Your task to perform on an android device: toggle notification dots Image 0: 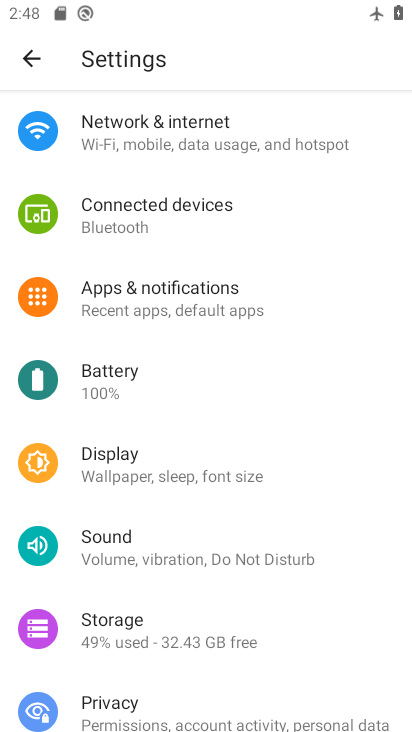
Step 0: press home button
Your task to perform on an android device: toggle notification dots Image 1: 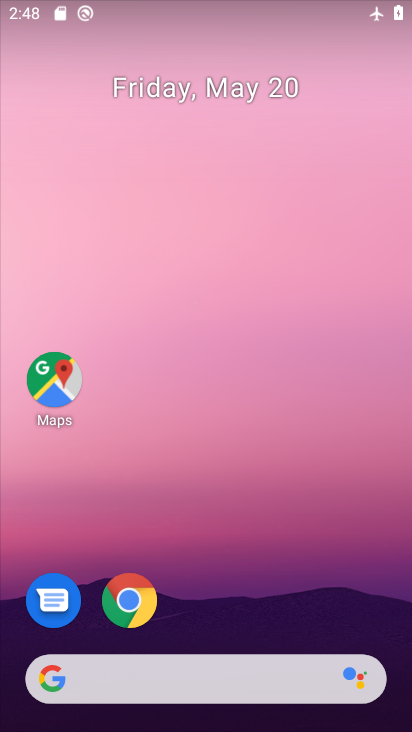
Step 1: drag from (285, 482) to (213, 106)
Your task to perform on an android device: toggle notification dots Image 2: 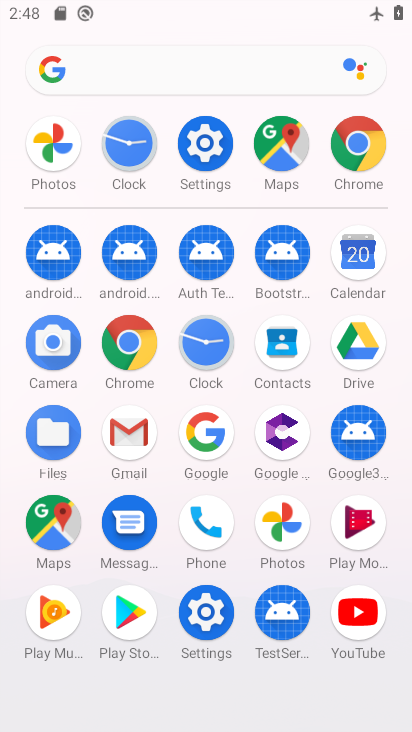
Step 2: click (210, 143)
Your task to perform on an android device: toggle notification dots Image 3: 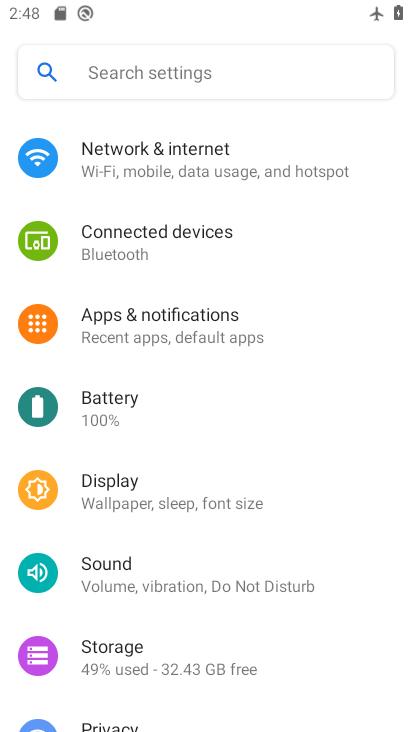
Step 3: click (204, 328)
Your task to perform on an android device: toggle notification dots Image 4: 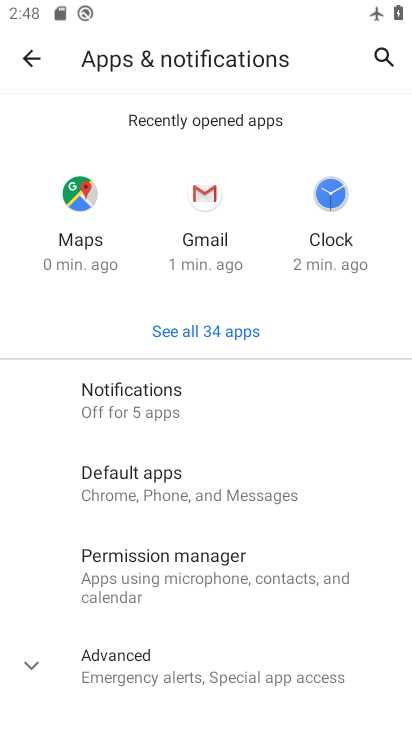
Step 4: drag from (311, 526) to (245, 151)
Your task to perform on an android device: toggle notification dots Image 5: 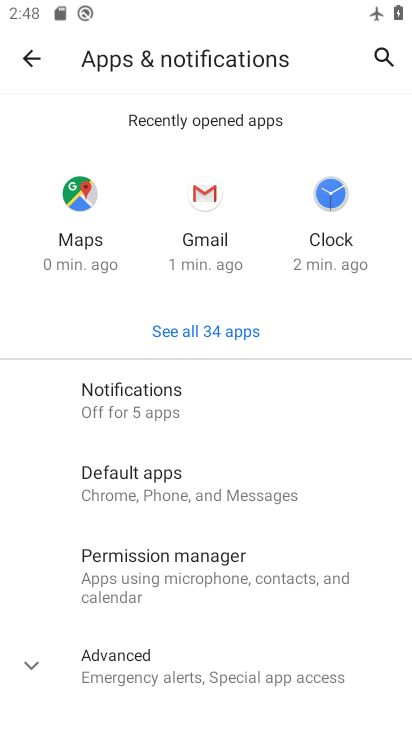
Step 5: click (202, 408)
Your task to perform on an android device: toggle notification dots Image 6: 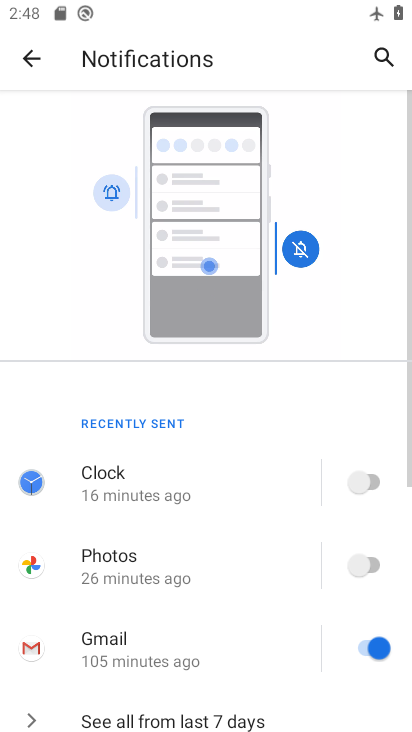
Step 6: drag from (280, 585) to (277, 160)
Your task to perform on an android device: toggle notification dots Image 7: 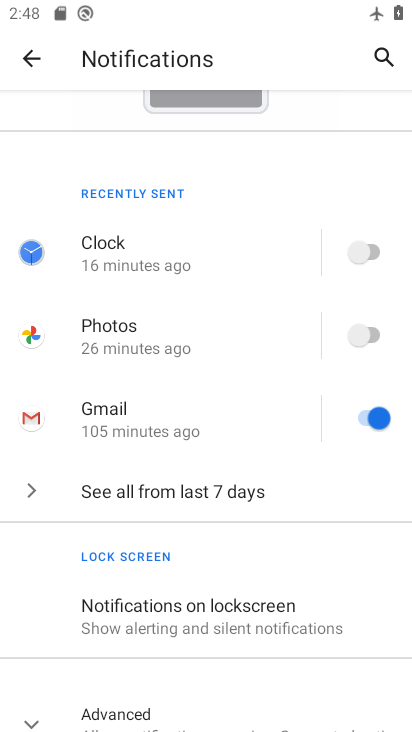
Step 7: click (206, 692)
Your task to perform on an android device: toggle notification dots Image 8: 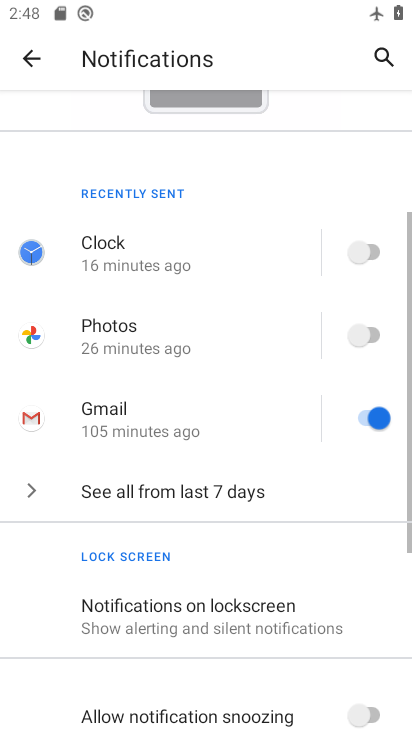
Step 8: drag from (231, 659) to (267, 216)
Your task to perform on an android device: toggle notification dots Image 9: 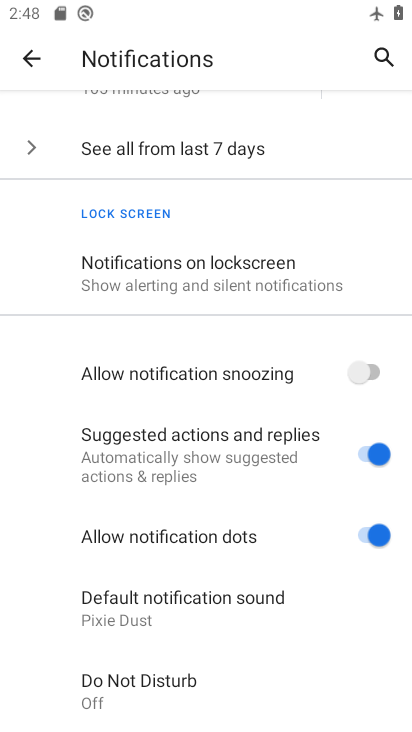
Step 9: click (367, 530)
Your task to perform on an android device: toggle notification dots Image 10: 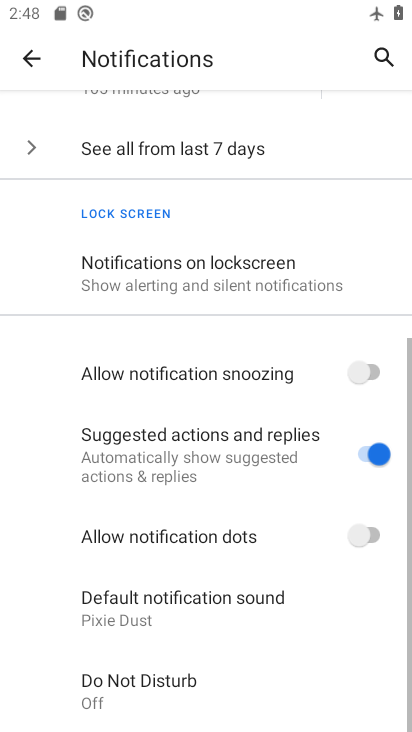
Step 10: task complete